Your task to perform on an android device: add a label to a message in the gmail app Image 0: 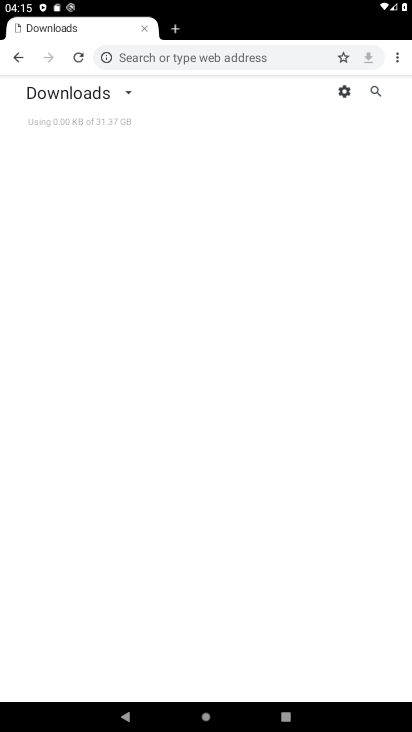
Step 0: press home button
Your task to perform on an android device: add a label to a message in the gmail app Image 1: 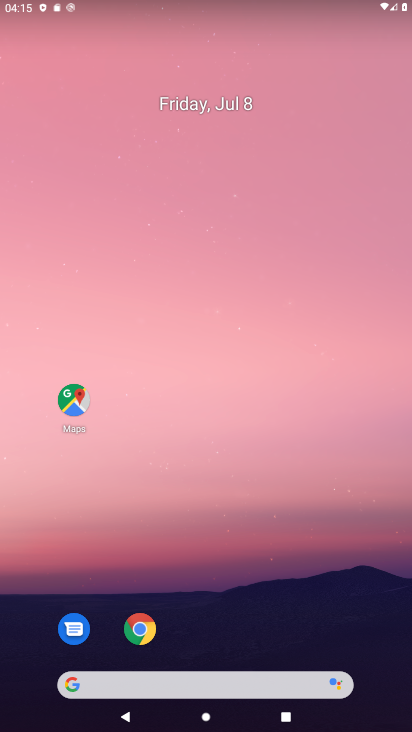
Step 1: drag from (263, 729) to (248, 68)
Your task to perform on an android device: add a label to a message in the gmail app Image 2: 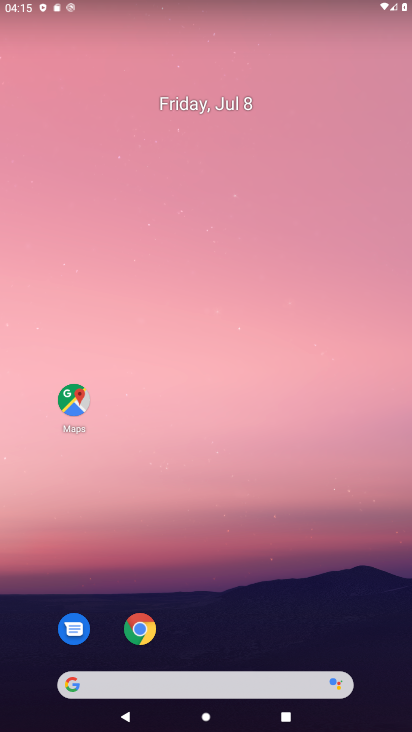
Step 2: drag from (176, 728) to (205, 131)
Your task to perform on an android device: add a label to a message in the gmail app Image 3: 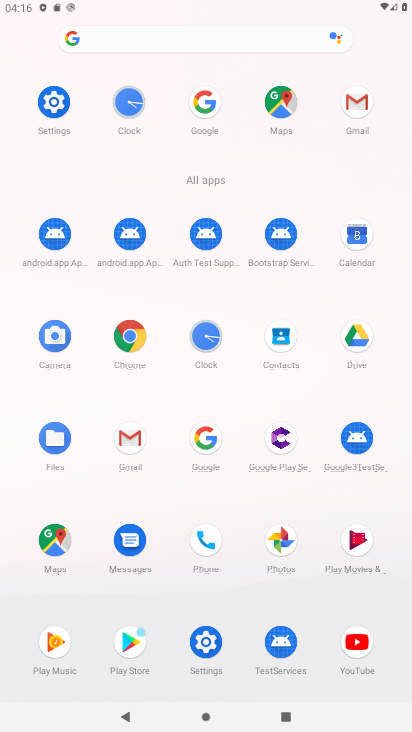
Step 3: click (131, 438)
Your task to perform on an android device: add a label to a message in the gmail app Image 4: 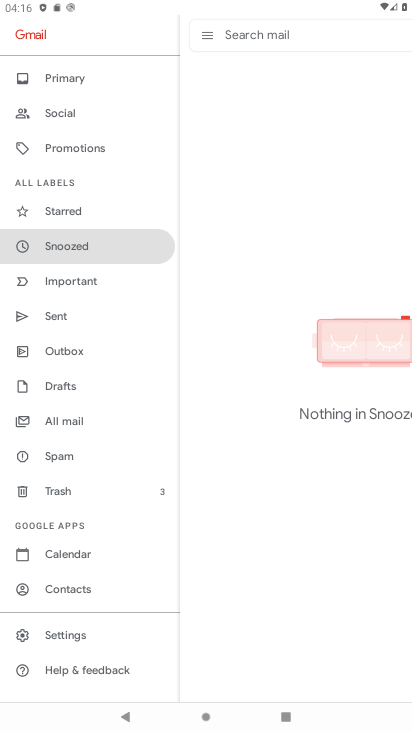
Step 4: task complete